Your task to perform on an android device: check storage Image 0: 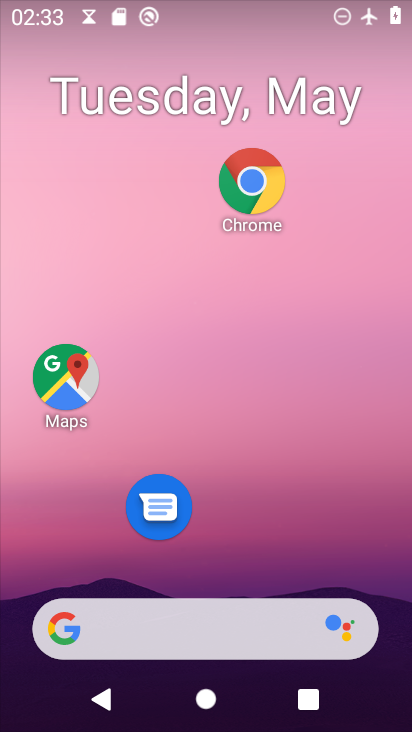
Step 0: drag from (291, 504) to (290, 243)
Your task to perform on an android device: check storage Image 1: 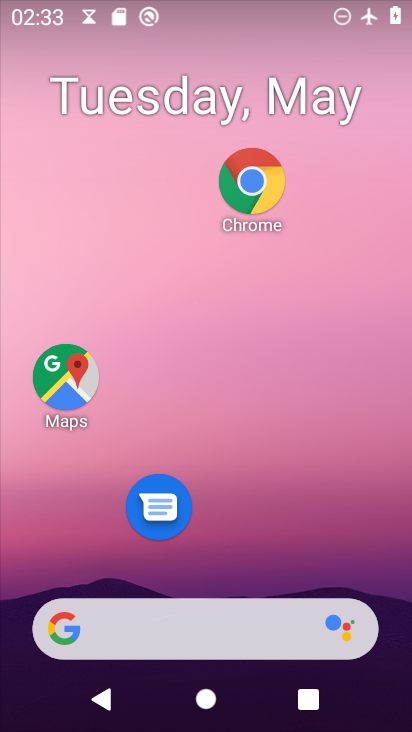
Step 1: drag from (262, 565) to (288, 139)
Your task to perform on an android device: check storage Image 2: 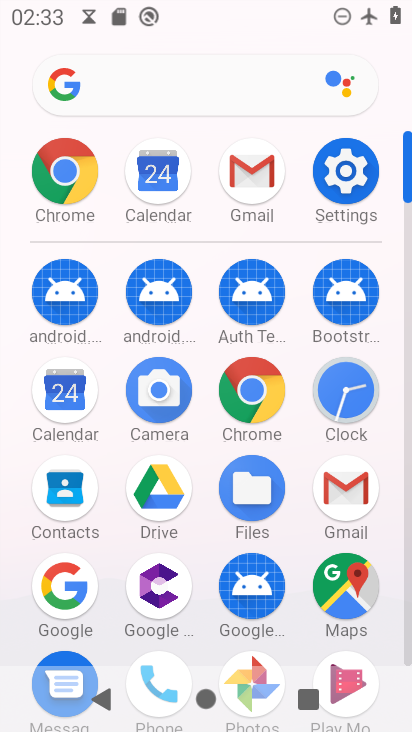
Step 2: click (345, 167)
Your task to perform on an android device: check storage Image 3: 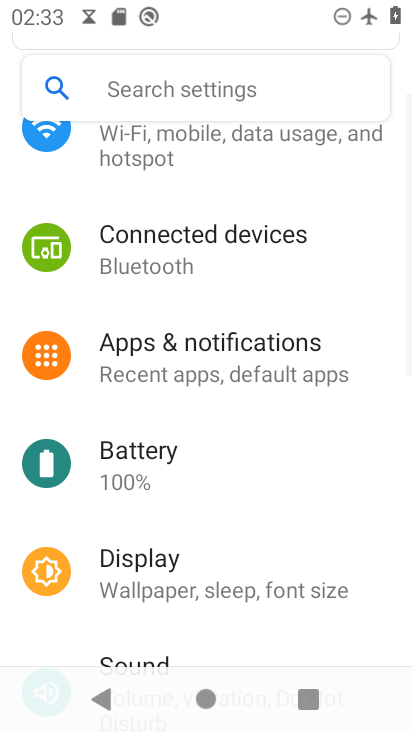
Step 3: drag from (234, 594) to (267, 145)
Your task to perform on an android device: check storage Image 4: 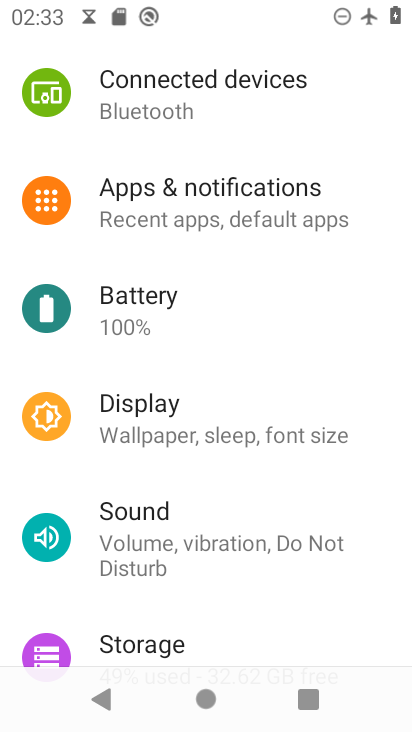
Step 4: click (192, 630)
Your task to perform on an android device: check storage Image 5: 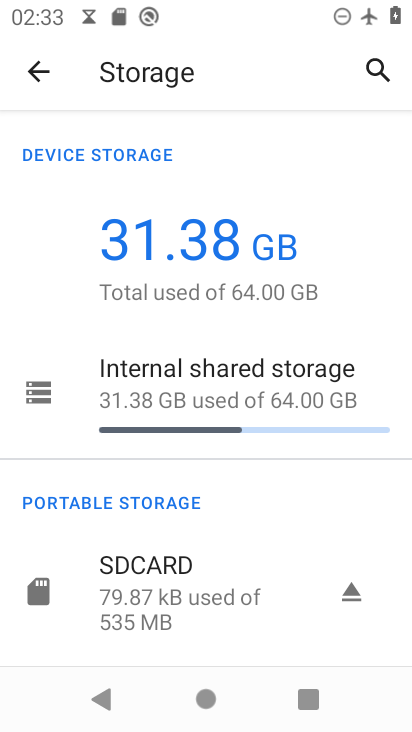
Step 5: task complete